Your task to perform on an android device: turn on notifications settings in the gmail app Image 0: 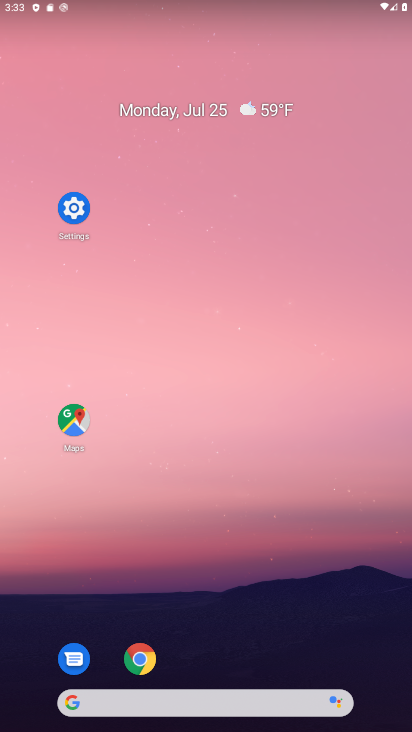
Step 0: drag from (295, 672) to (292, 227)
Your task to perform on an android device: turn on notifications settings in the gmail app Image 1: 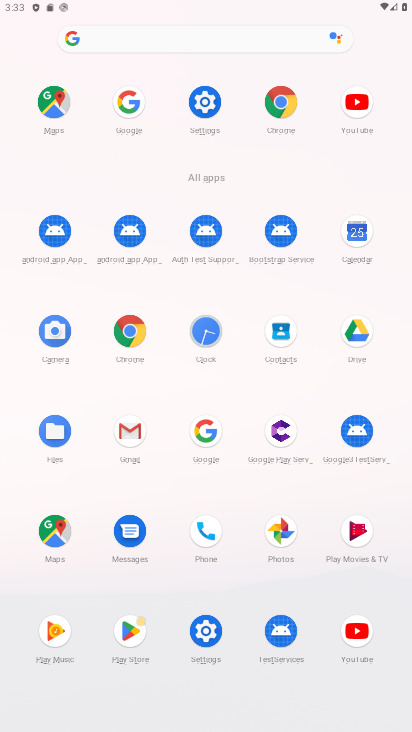
Step 1: click (138, 421)
Your task to perform on an android device: turn on notifications settings in the gmail app Image 2: 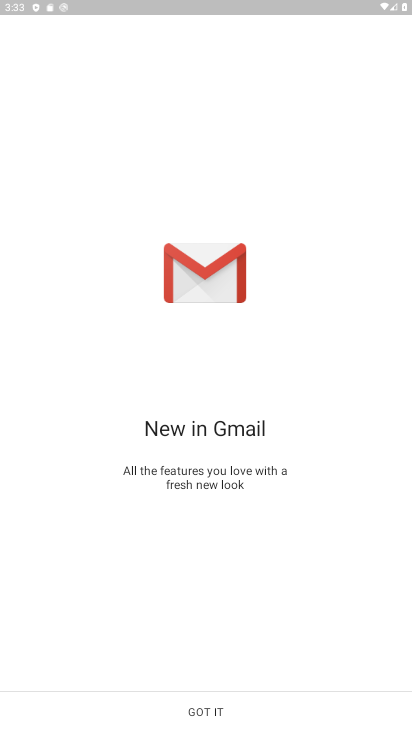
Step 2: click (300, 713)
Your task to perform on an android device: turn on notifications settings in the gmail app Image 3: 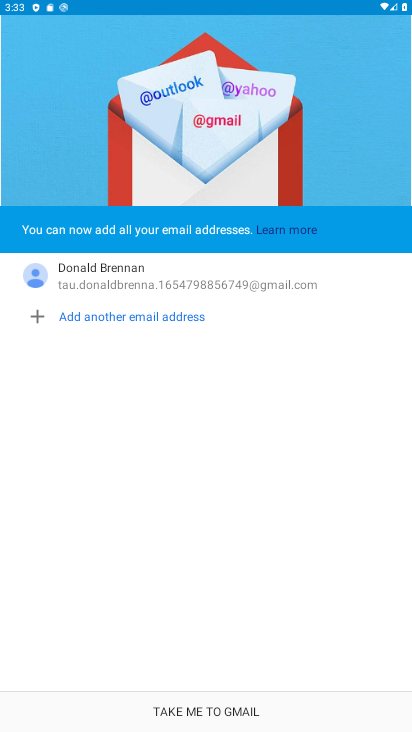
Step 3: click (300, 713)
Your task to perform on an android device: turn on notifications settings in the gmail app Image 4: 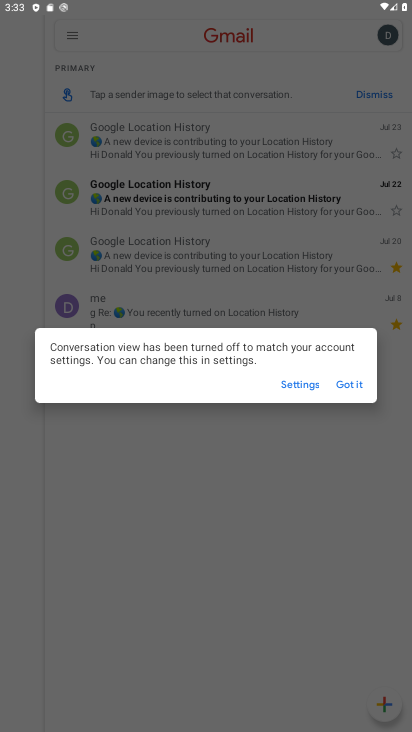
Step 4: click (360, 388)
Your task to perform on an android device: turn on notifications settings in the gmail app Image 5: 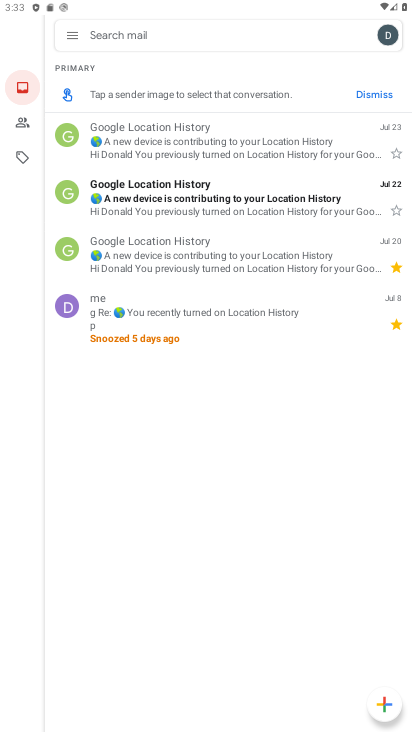
Step 5: click (74, 40)
Your task to perform on an android device: turn on notifications settings in the gmail app Image 6: 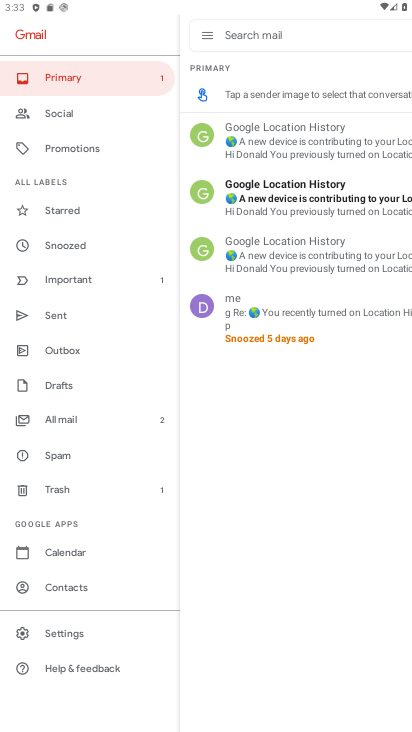
Step 6: click (113, 627)
Your task to perform on an android device: turn on notifications settings in the gmail app Image 7: 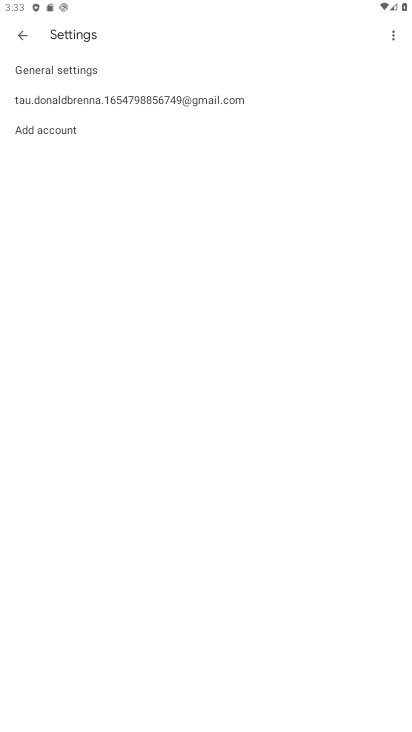
Step 7: click (163, 103)
Your task to perform on an android device: turn on notifications settings in the gmail app Image 8: 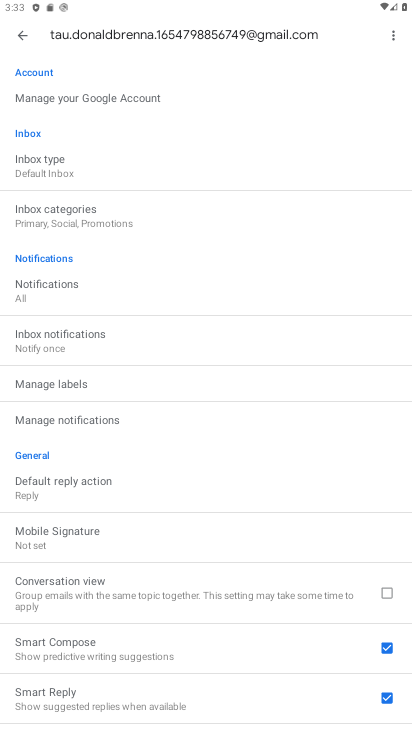
Step 8: click (100, 299)
Your task to perform on an android device: turn on notifications settings in the gmail app Image 9: 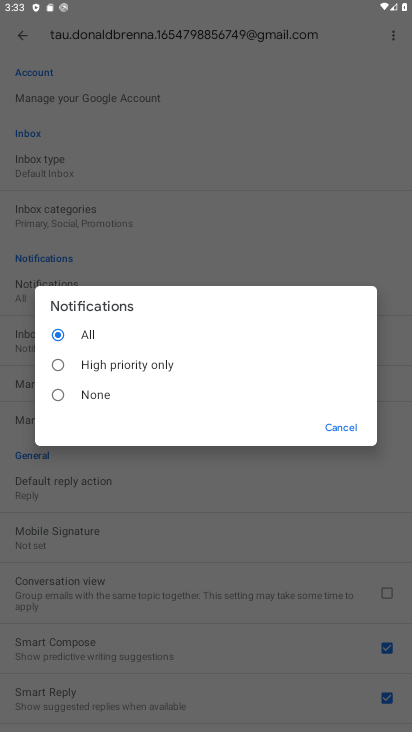
Step 9: task complete